Your task to perform on an android device: toggle priority inbox in the gmail app Image 0: 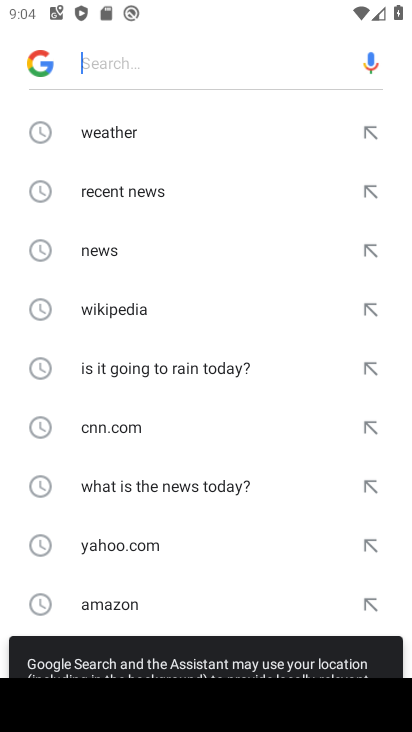
Step 0: press back button
Your task to perform on an android device: toggle priority inbox in the gmail app Image 1: 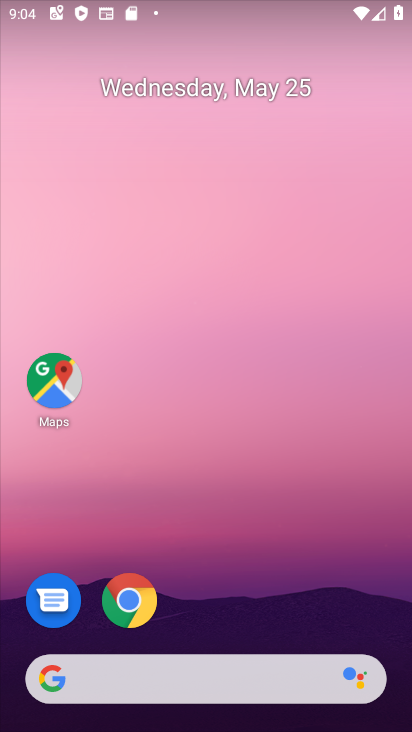
Step 1: drag from (202, 539) to (157, 6)
Your task to perform on an android device: toggle priority inbox in the gmail app Image 2: 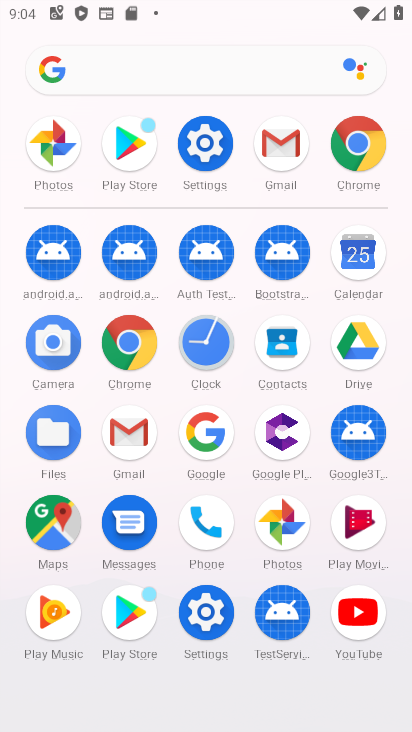
Step 2: drag from (0, 566) to (12, 284)
Your task to perform on an android device: toggle priority inbox in the gmail app Image 3: 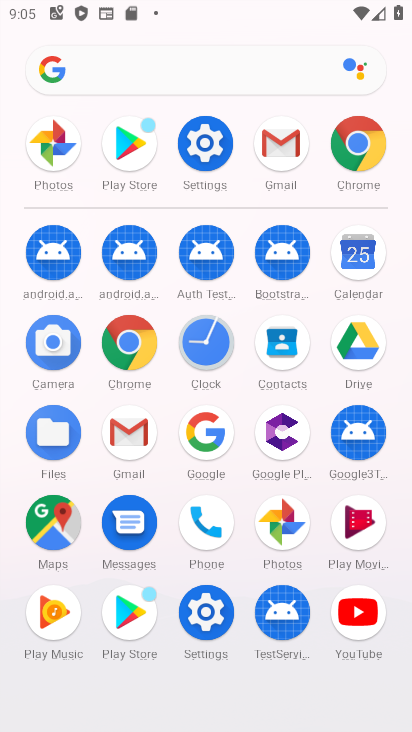
Step 3: click (126, 427)
Your task to perform on an android device: toggle priority inbox in the gmail app Image 4: 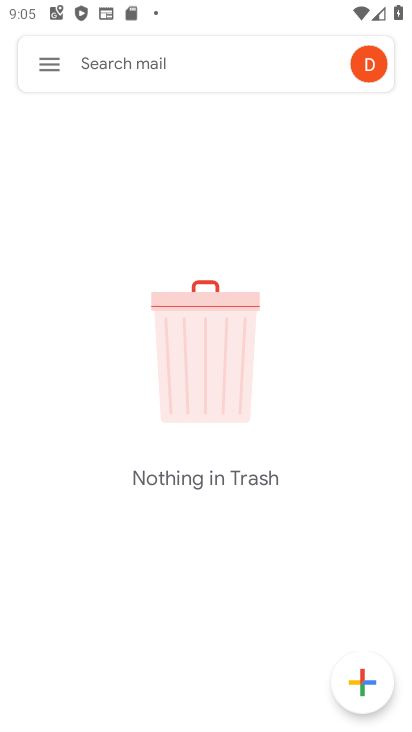
Step 4: click (34, 55)
Your task to perform on an android device: toggle priority inbox in the gmail app Image 5: 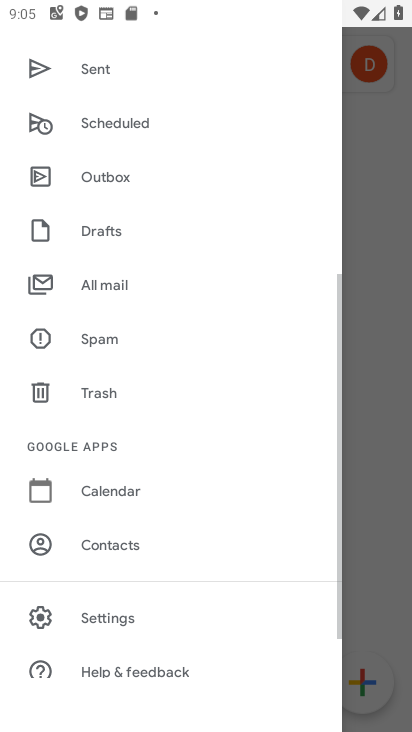
Step 5: click (93, 604)
Your task to perform on an android device: toggle priority inbox in the gmail app Image 6: 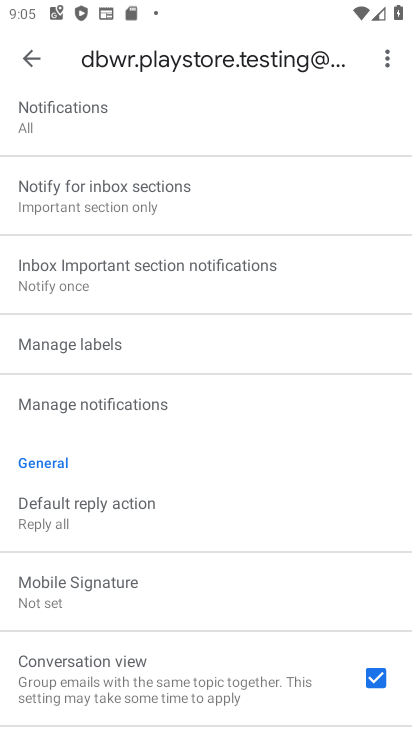
Step 6: drag from (239, 227) to (232, 658)
Your task to perform on an android device: toggle priority inbox in the gmail app Image 7: 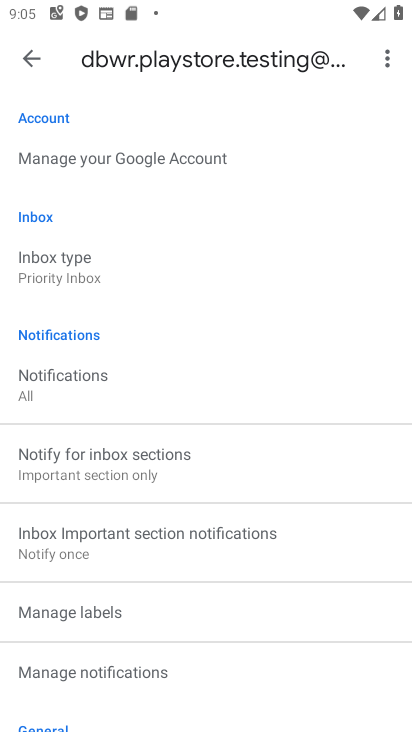
Step 7: click (124, 270)
Your task to perform on an android device: toggle priority inbox in the gmail app Image 8: 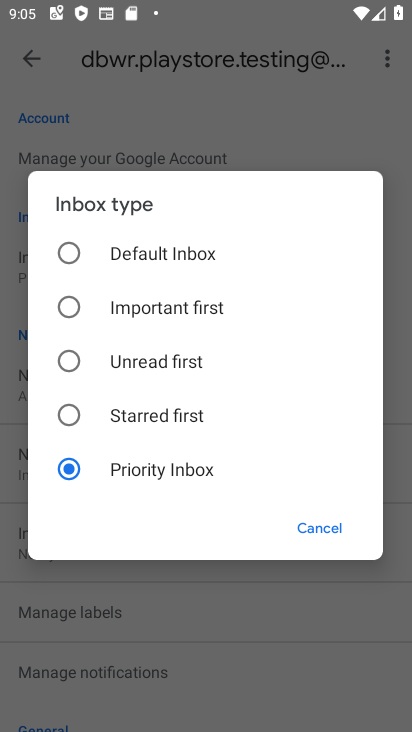
Step 8: click (150, 470)
Your task to perform on an android device: toggle priority inbox in the gmail app Image 9: 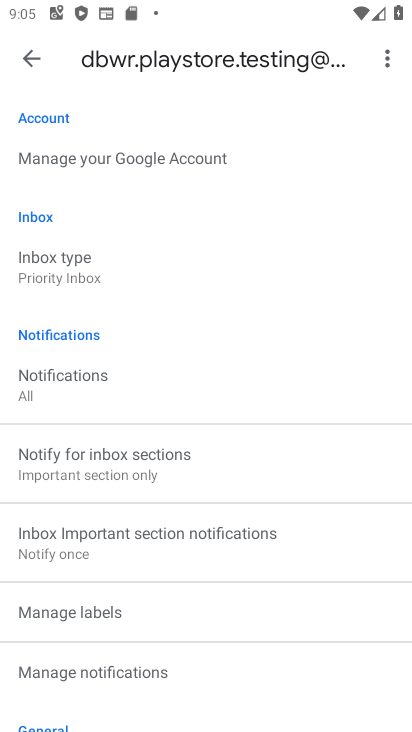
Step 9: task complete